Your task to perform on an android device: What is the news today? Image 0: 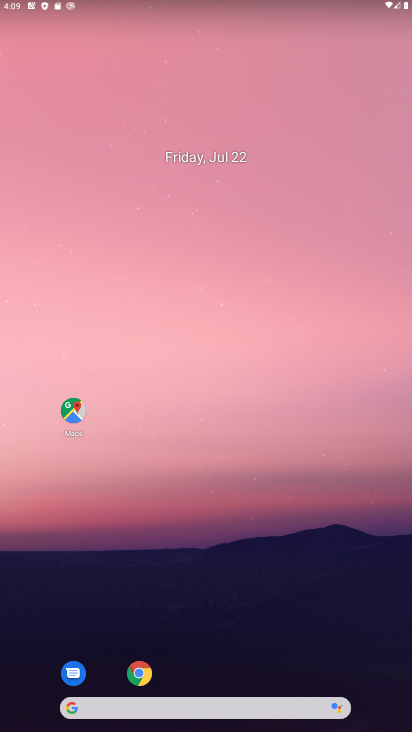
Step 0: drag from (14, 313) to (404, 355)
Your task to perform on an android device: What is the news today? Image 1: 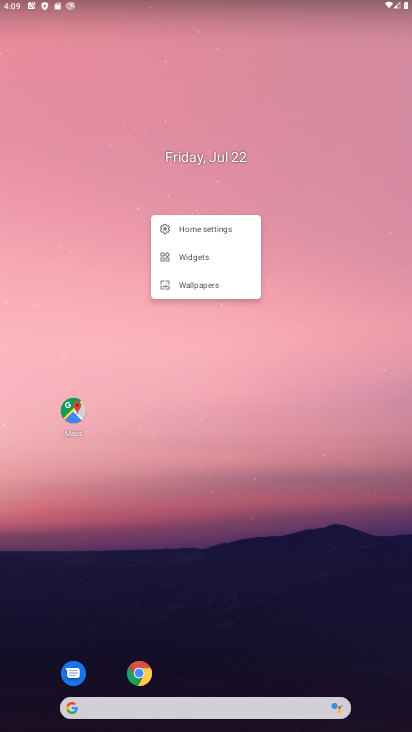
Step 1: click (139, 392)
Your task to perform on an android device: What is the news today? Image 2: 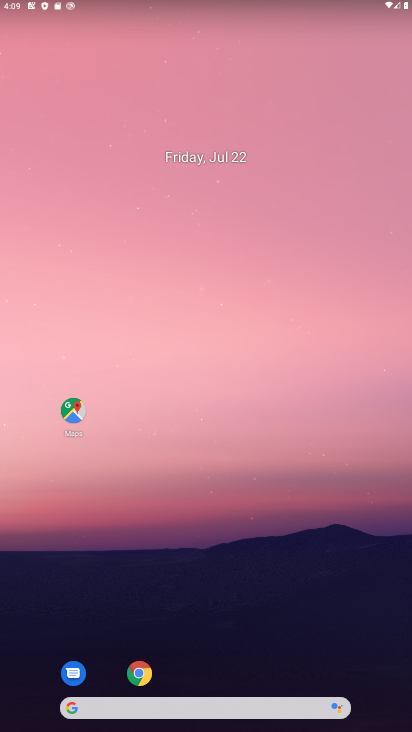
Step 2: task complete